Your task to perform on an android device: See recent photos Image 0: 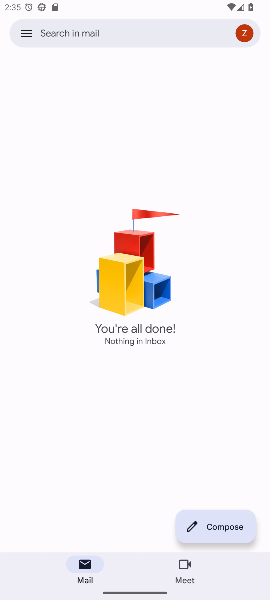
Step 0: press home button
Your task to perform on an android device: See recent photos Image 1: 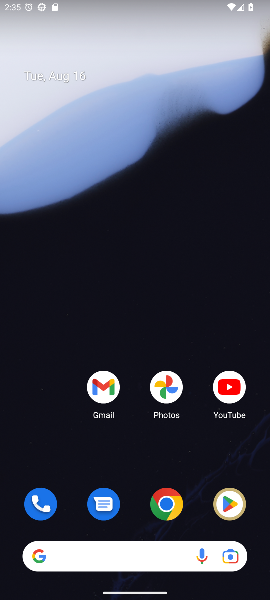
Step 1: click (169, 381)
Your task to perform on an android device: See recent photos Image 2: 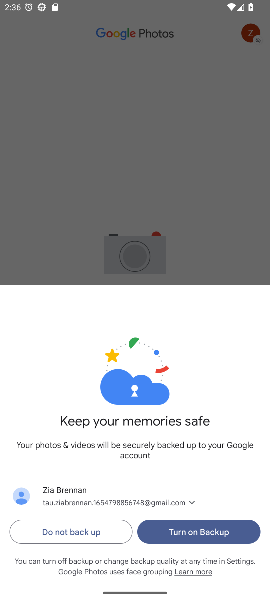
Step 2: click (95, 530)
Your task to perform on an android device: See recent photos Image 3: 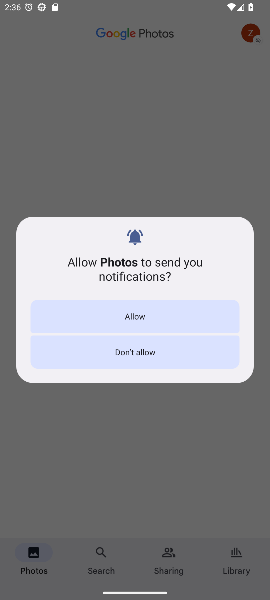
Step 3: click (117, 305)
Your task to perform on an android device: See recent photos Image 4: 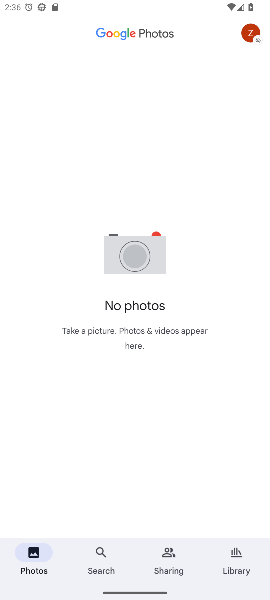
Step 4: task complete